Your task to perform on an android device: Add macbook air to the cart on amazon.com Image 0: 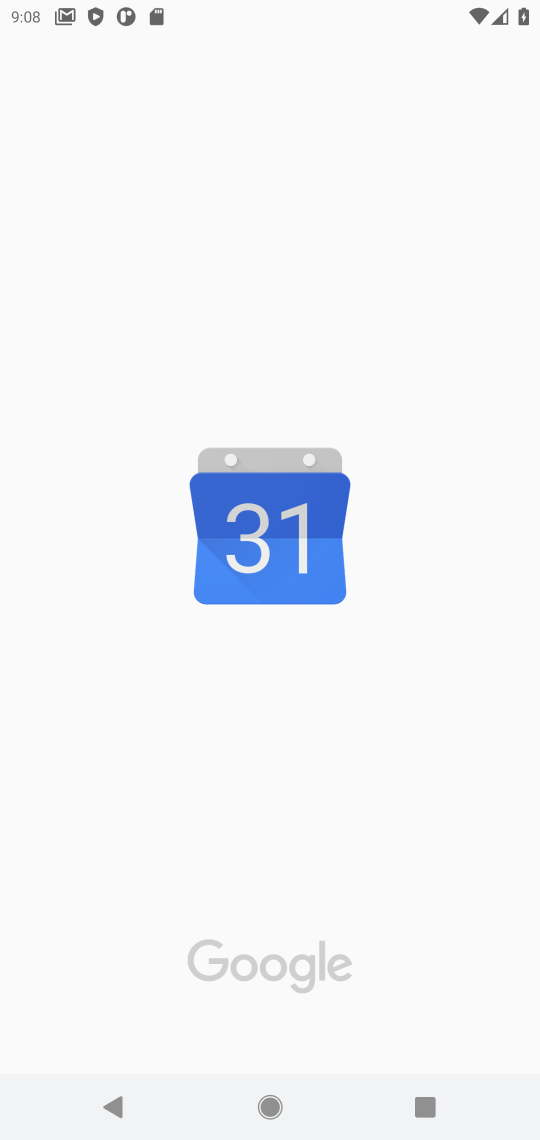
Step 0: click (364, 910)
Your task to perform on an android device: Add macbook air to the cart on amazon.com Image 1: 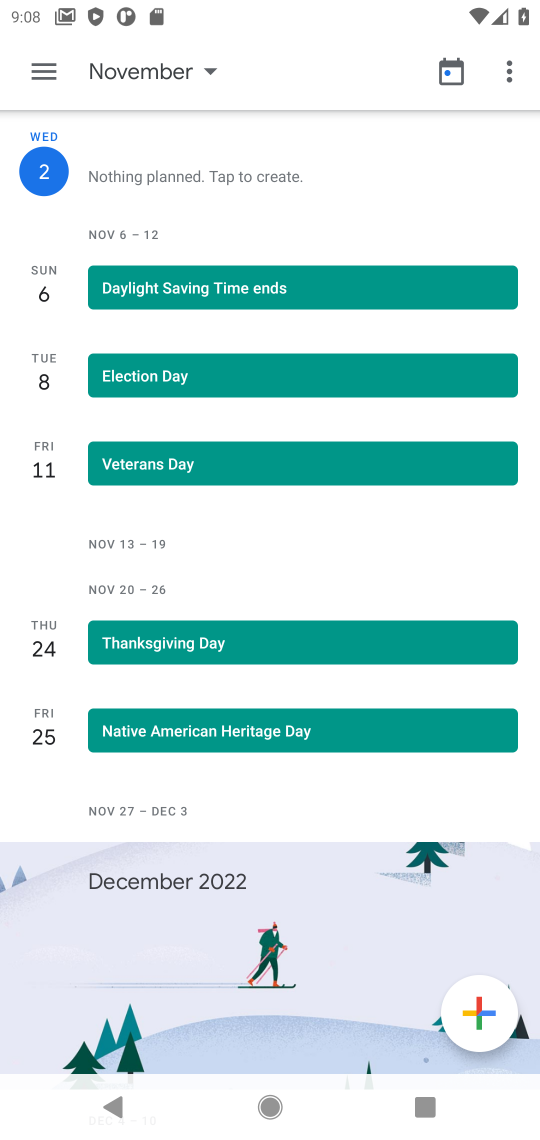
Step 1: press home button
Your task to perform on an android device: Add macbook air to the cart on amazon.com Image 2: 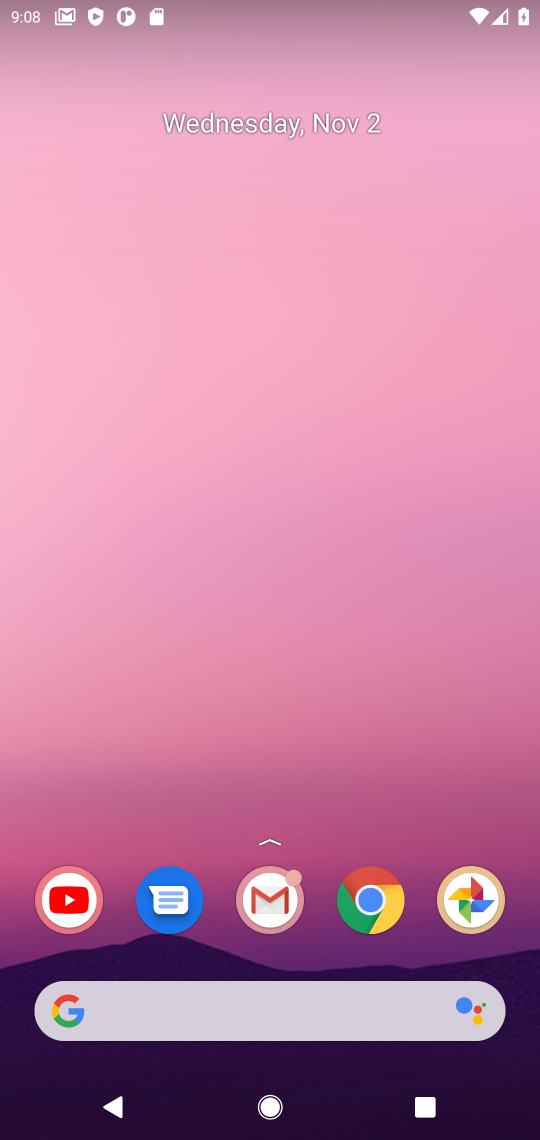
Step 2: click (354, 917)
Your task to perform on an android device: Add macbook air to the cart on amazon.com Image 3: 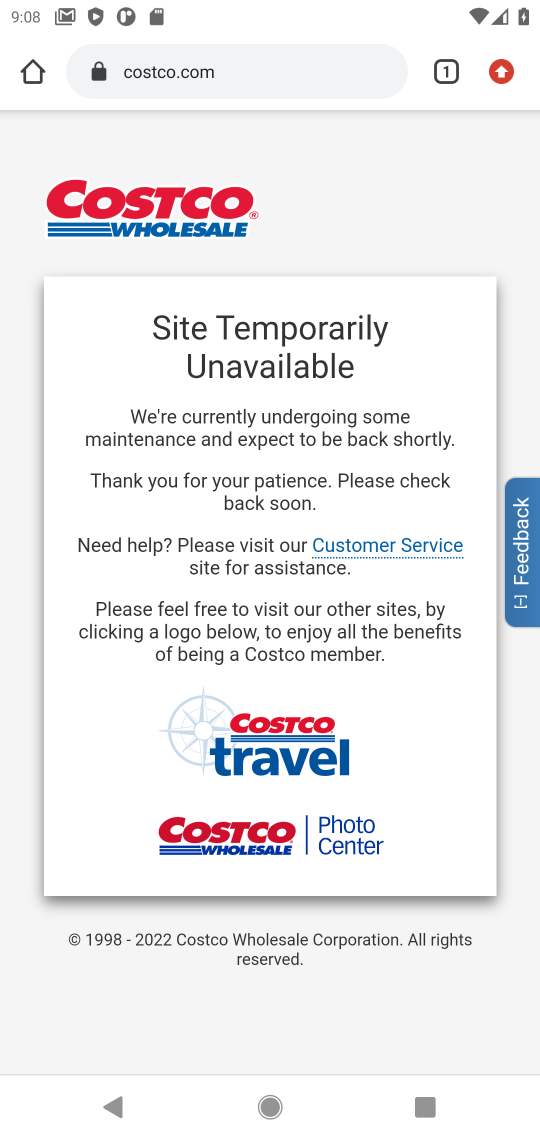
Step 3: click (144, 69)
Your task to perform on an android device: Add macbook air to the cart on amazon.com Image 4: 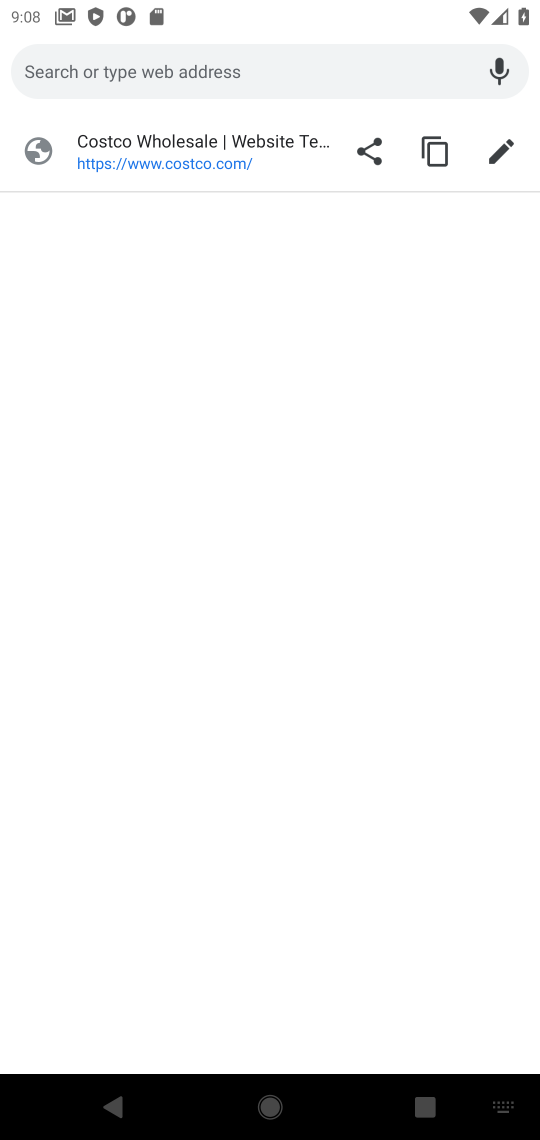
Step 4: type "amazon"
Your task to perform on an android device: Add macbook air to the cart on amazon.com Image 5: 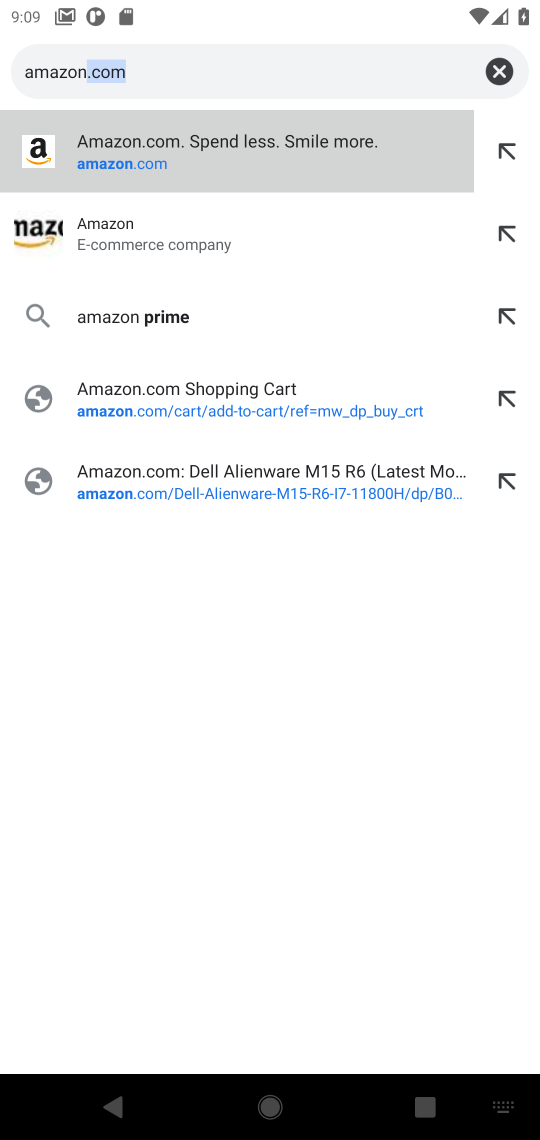
Step 5: click (257, 242)
Your task to perform on an android device: Add macbook air to the cart on amazon.com Image 6: 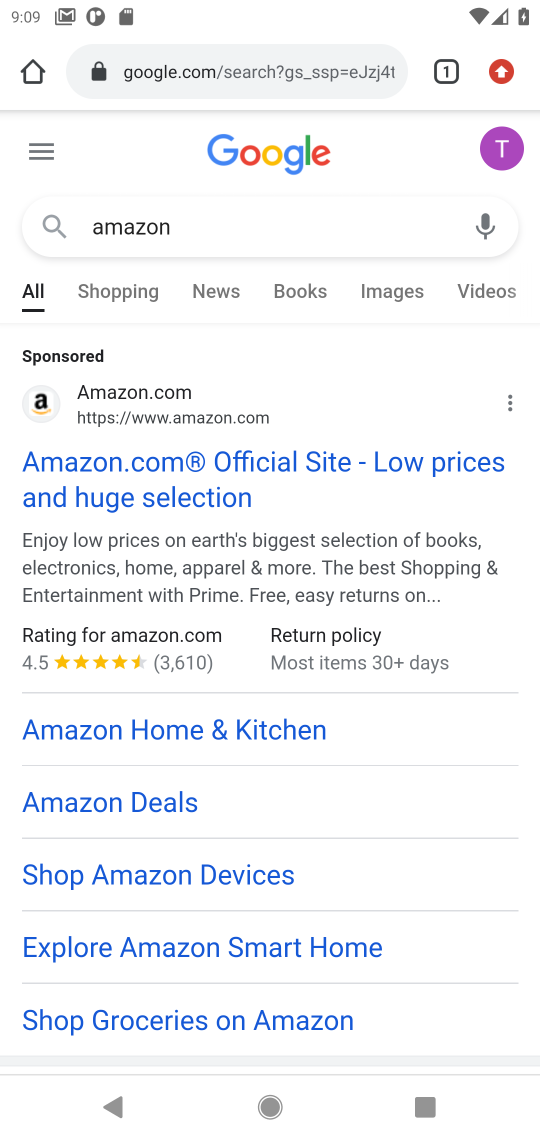
Step 6: click (94, 501)
Your task to perform on an android device: Add macbook air to the cart on amazon.com Image 7: 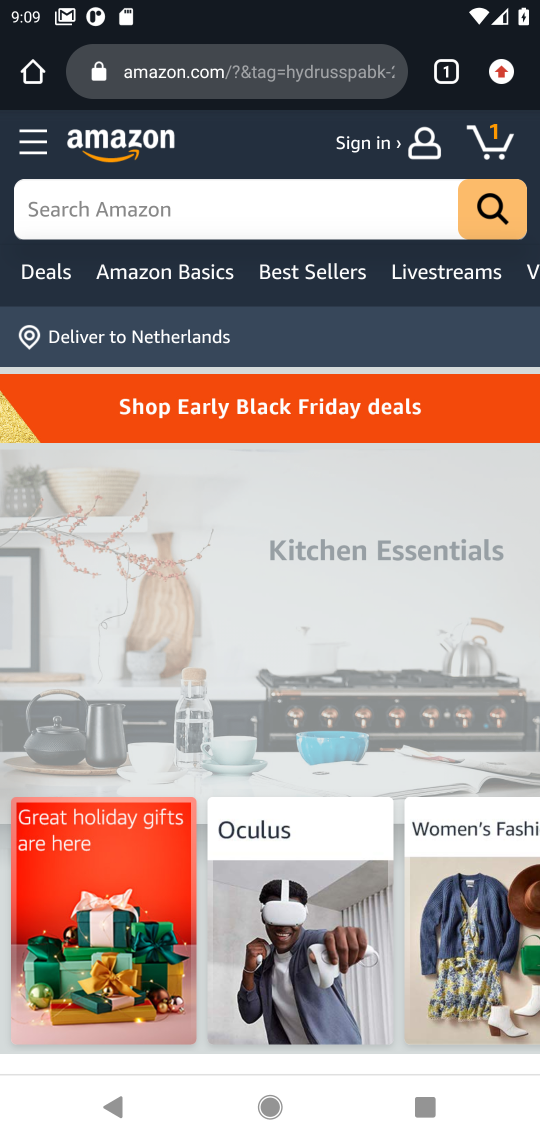
Step 7: click (228, 208)
Your task to perform on an android device: Add macbook air to the cart on amazon.com Image 8: 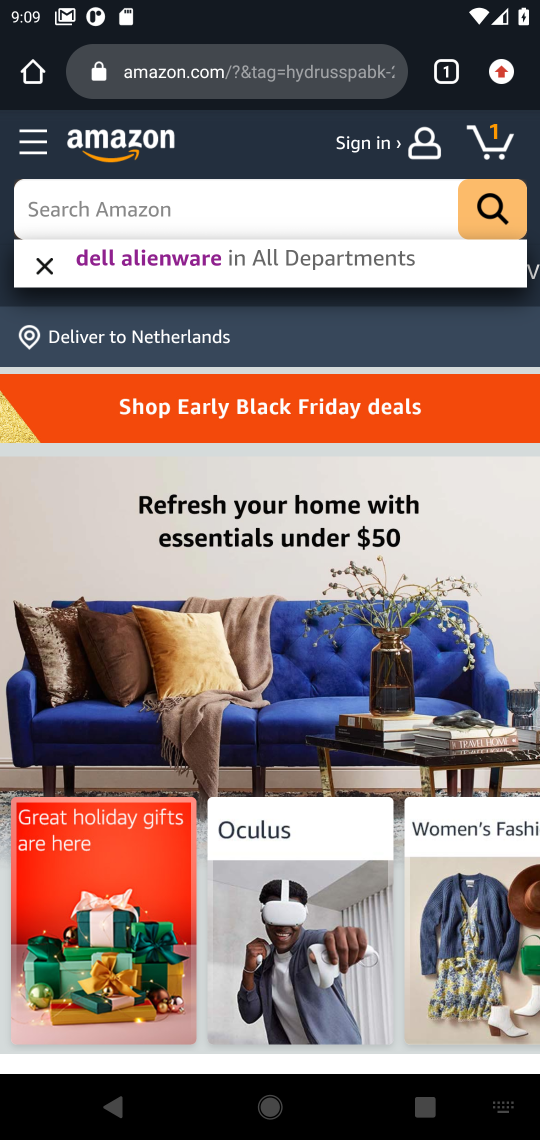
Step 8: type "macbook air"
Your task to perform on an android device: Add macbook air to the cart on amazon.com Image 9: 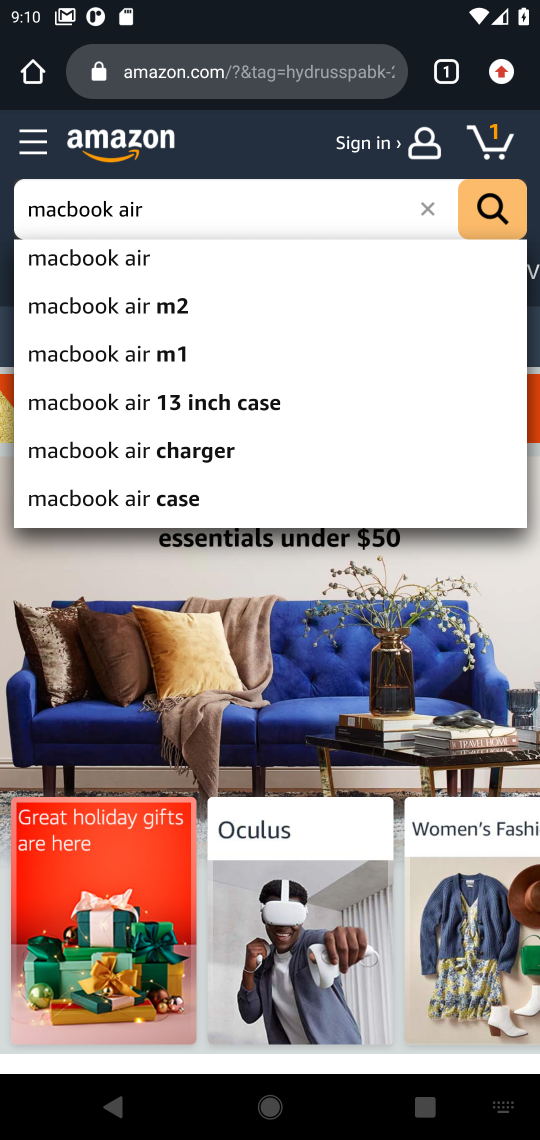
Step 9: click (481, 194)
Your task to perform on an android device: Add macbook air to the cart on amazon.com Image 10: 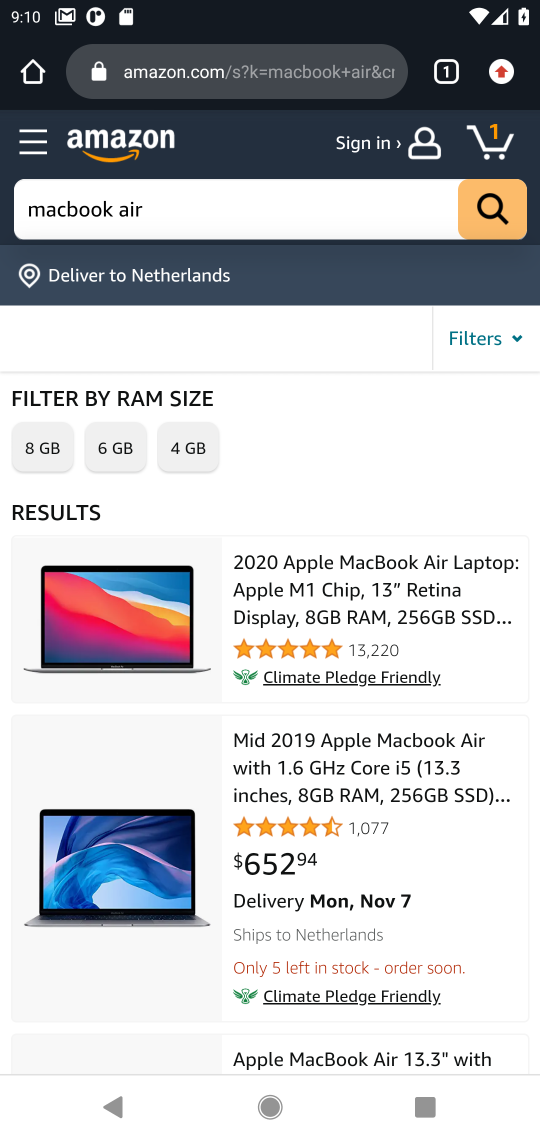
Step 10: click (346, 586)
Your task to perform on an android device: Add macbook air to the cart on amazon.com Image 11: 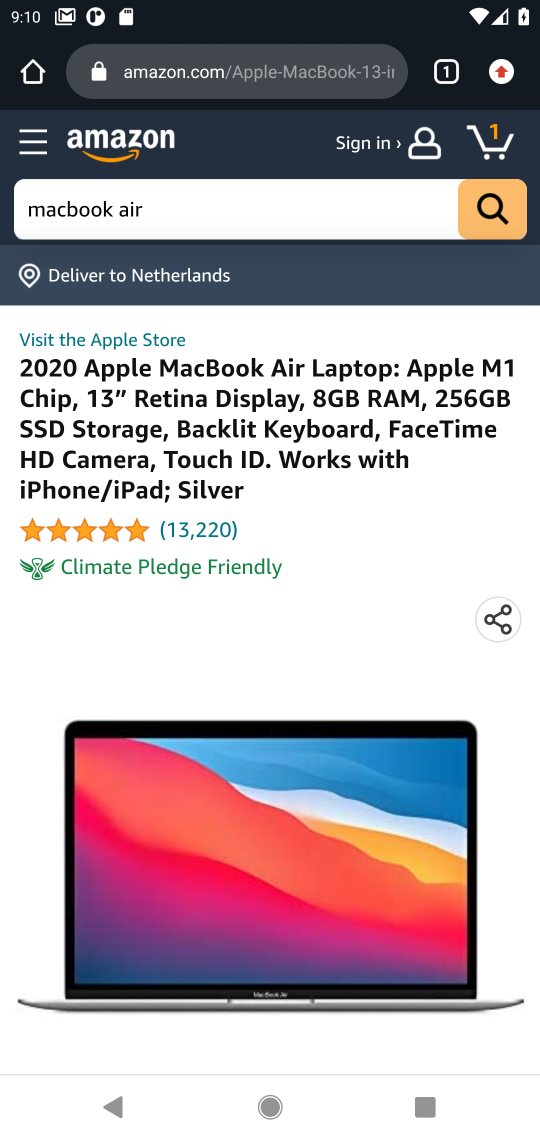
Step 11: drag from (232, 623) to (257, 264)
Your task to perform on an android device: Add macbook air to the cart on amazon.com Image 12: 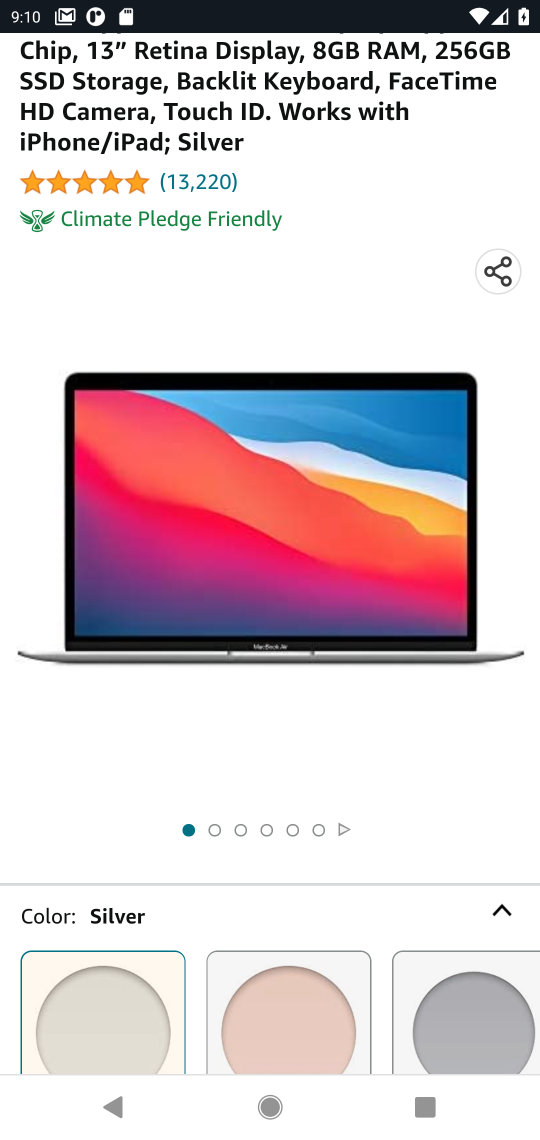
Step 12: drag from (248, 863) to (273, 257)
Your task to perform on an android device: Add macbook air to the cart on amazon.com Image 13: 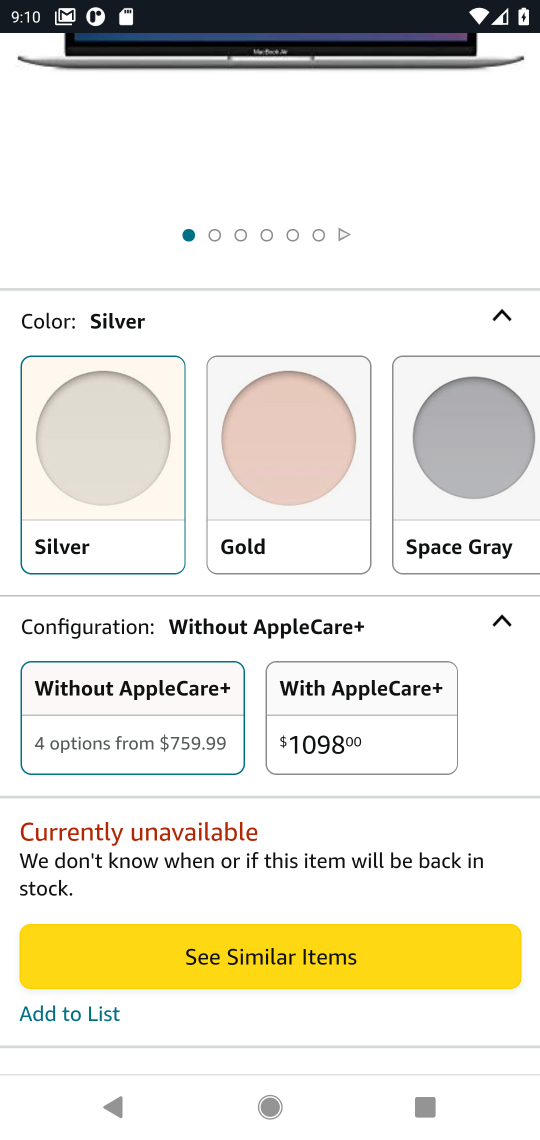
Step 13: click (264, 963)
Your task to perform on an android device: Add macbook air to the cart on amazon.com Image 14: 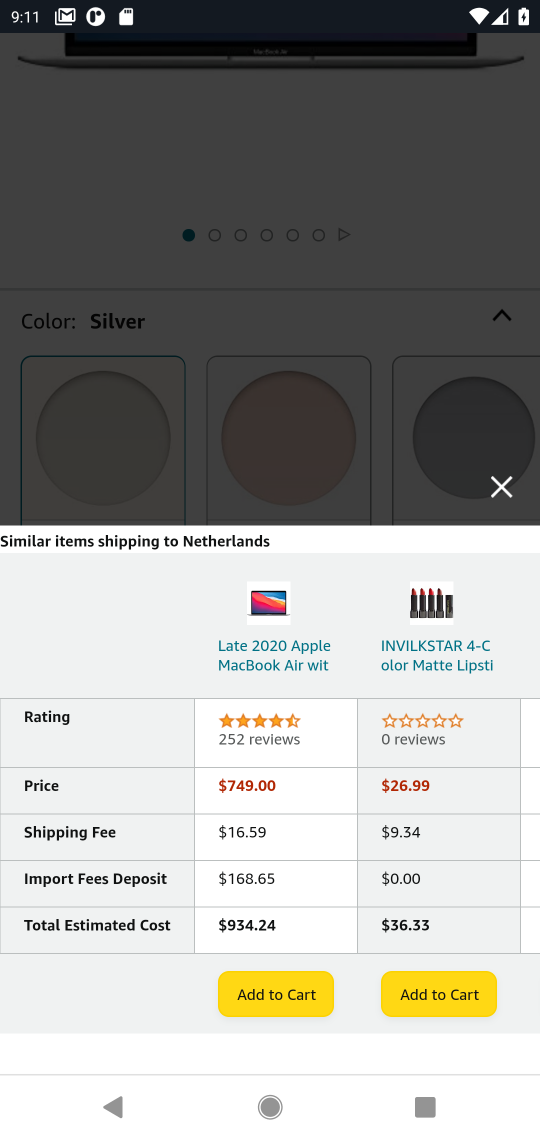
Step 14: click (290, 984)
Your task to perform on an android device: Add macbook air to the cart on amazon.com Image 15: 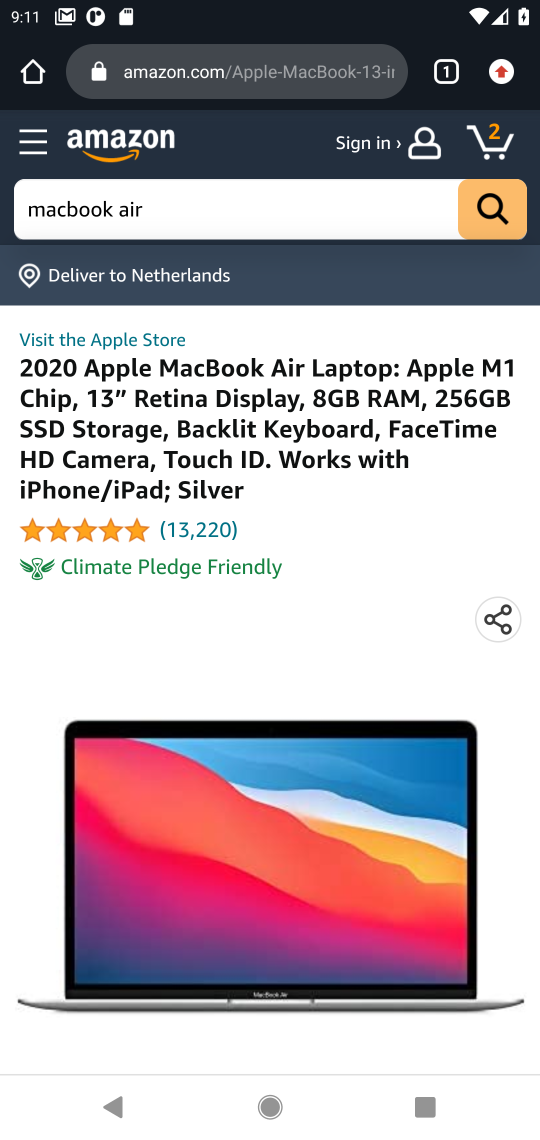
Step 15: task complete